Your task to perform on an android device: refresh tabs in the chrome app Image 0: 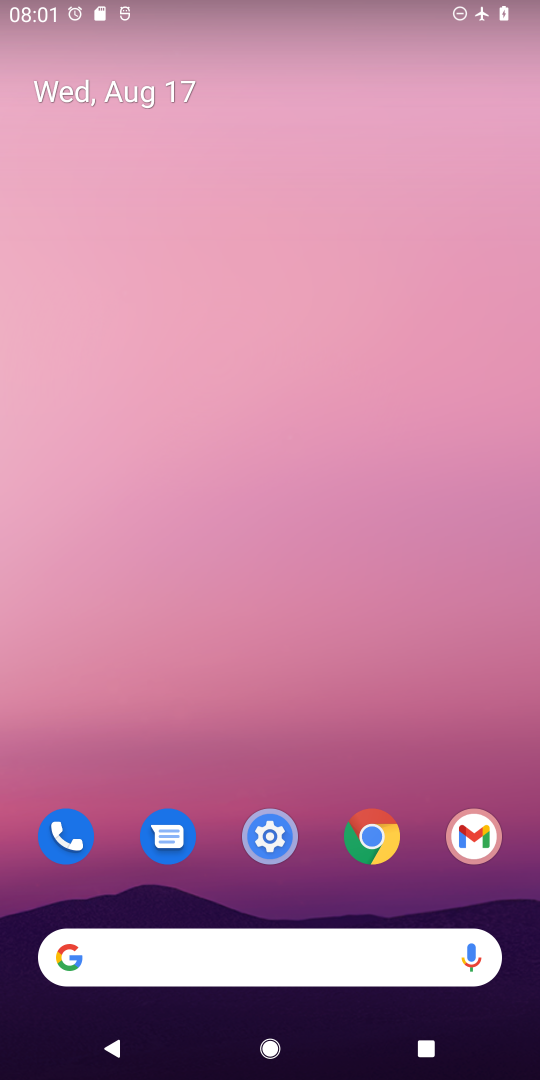
Step 0: click (336, 236)
Your task to perform on an android device: refresh tabs in the chrome app Image 1: 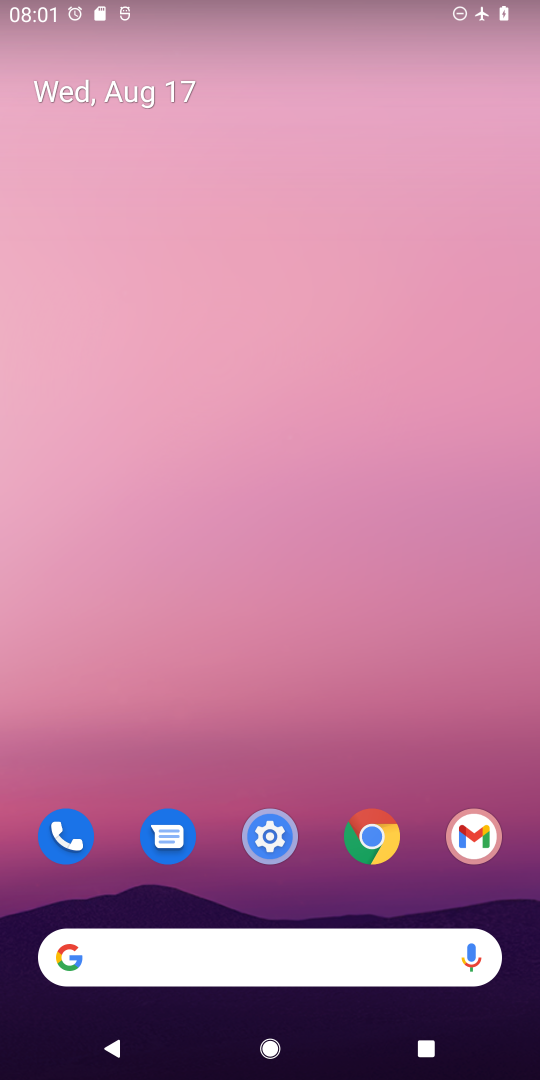
Step 1: drag from (273, 907) to (302, 196)
Your task to perform on an android device: refresh tabs in the chrome app Image 2: 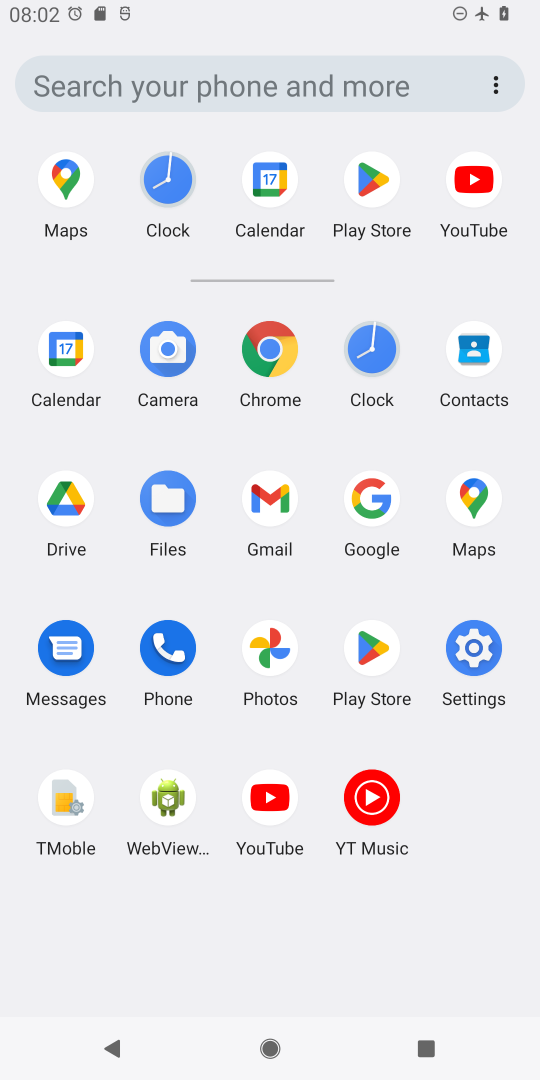
Step 2: click (288, 346)
Your task to perform on an android device: refresh tabs in the chrome app Image 3: 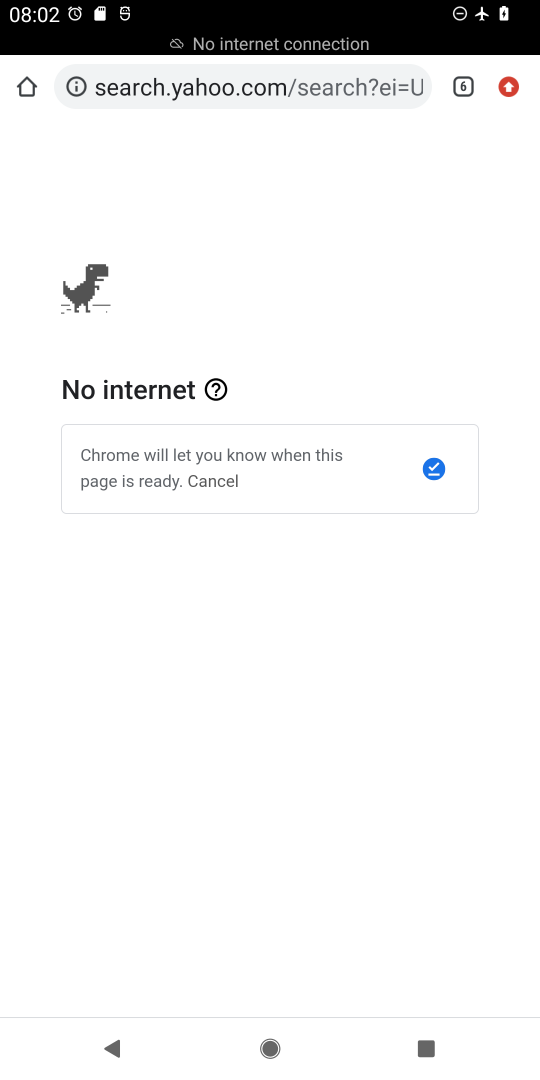
Step 3: click (523, 56)
Your task to perform on an android device: refresh tabs in the chrome app Image 4: 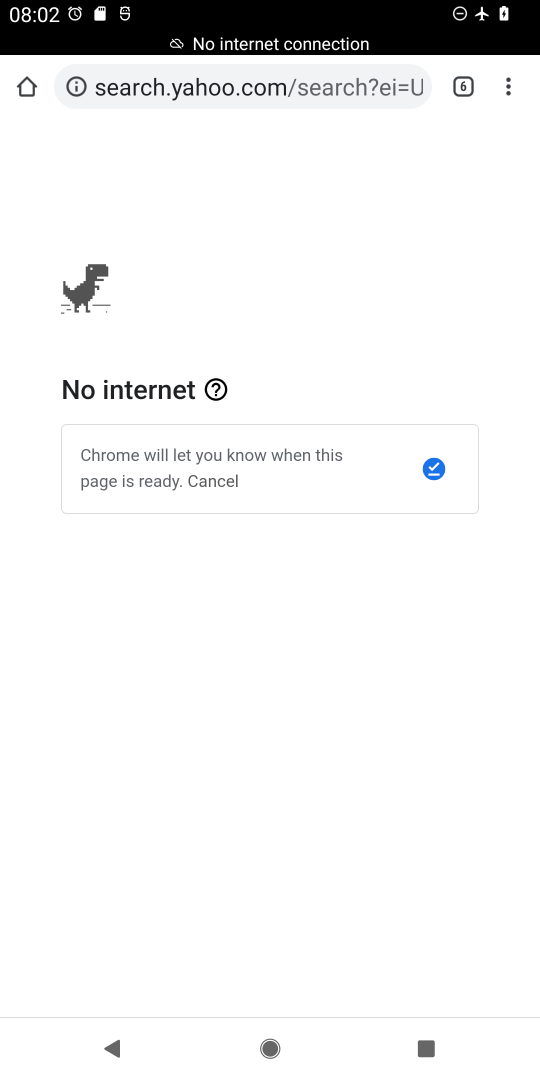
Step 4: click (521, 92)
Your task to perform on an android device: refresh tabs in the chrome app Image 5: 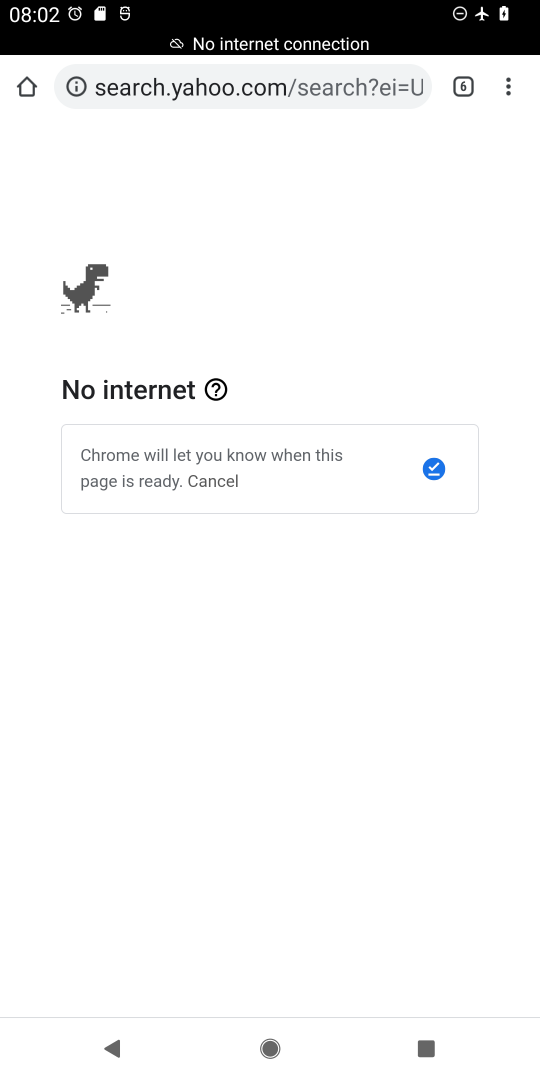
Step 5: click (521, 86)
Your task to perform on an android device: refresh tabs in the chrome app Image 6: 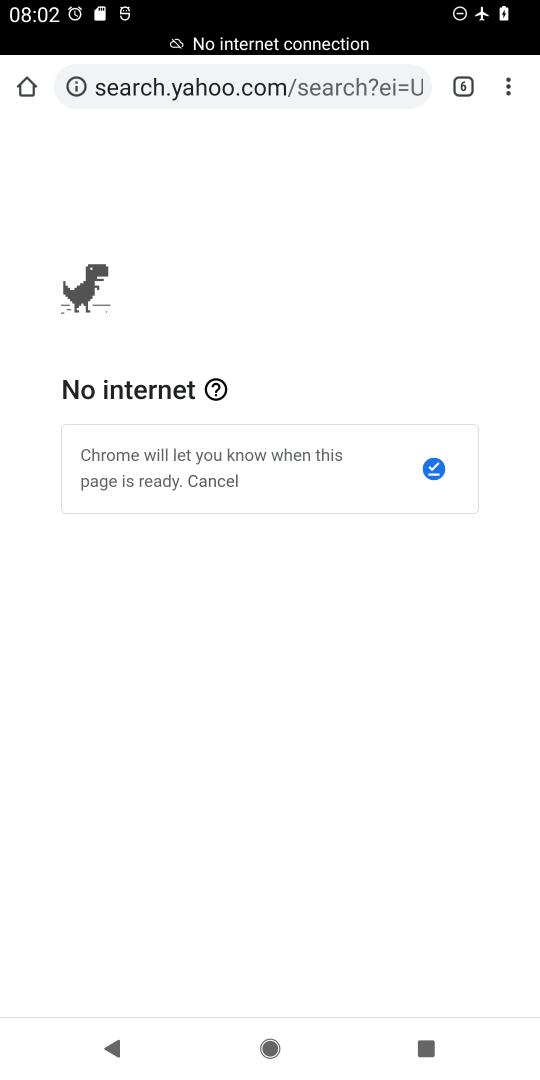
Step 6: click (501, 86)
Your task to perform on an android device: refresh tabs in the chrome app Image 7: 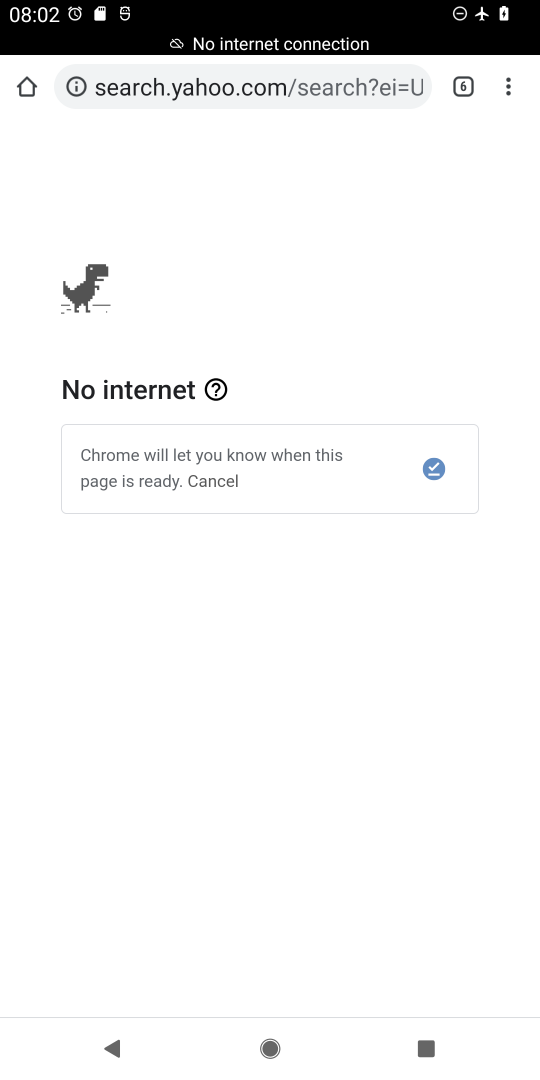
Step 7: click (498, 89)
Your task to perform on an android device: refresh tabs in the chrome app Image 8: 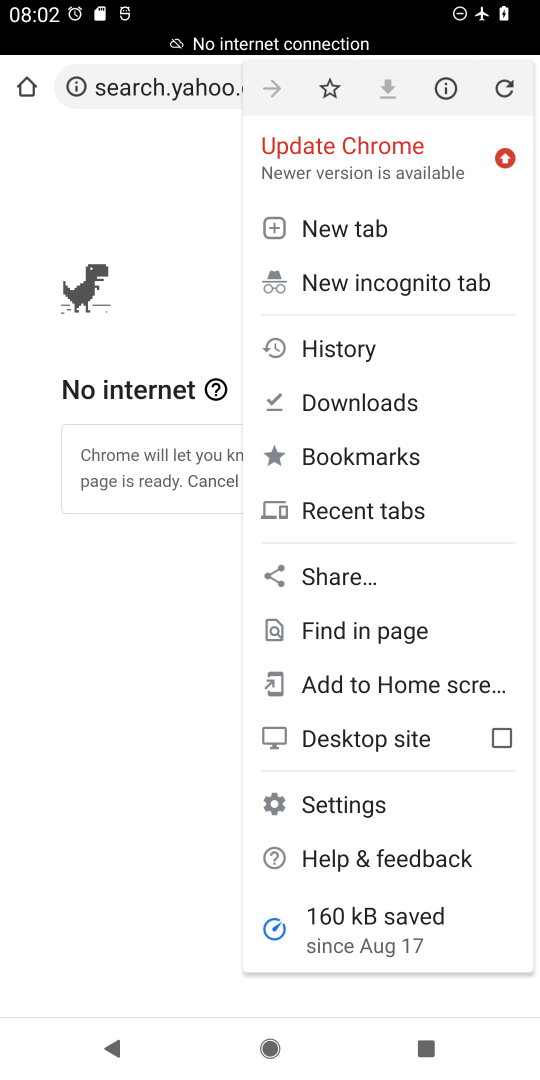
Step 8: click (508, 88)
Your task to perform on an android device: refresh tabs in the chrome app Image 9: 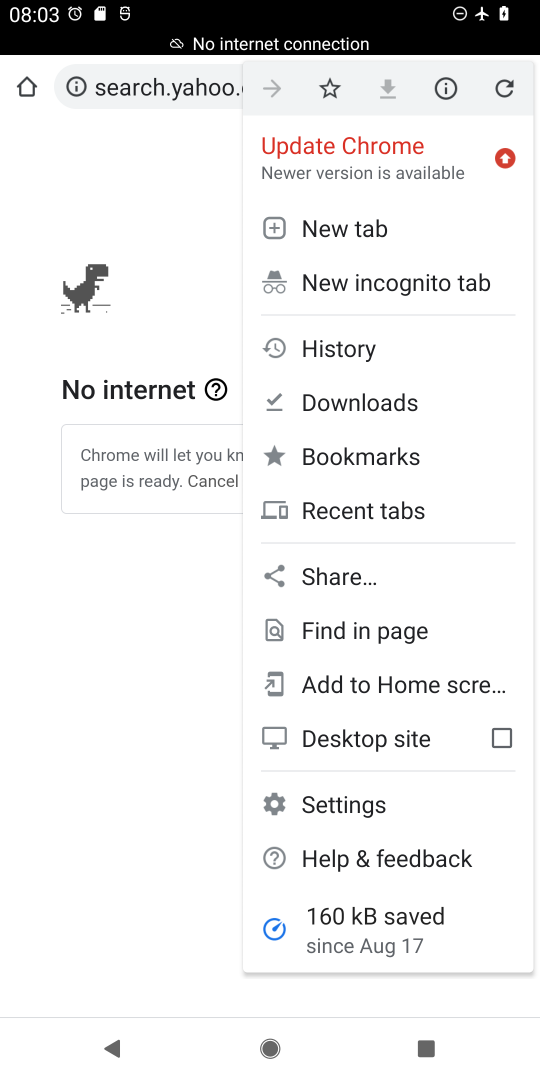
Step 9: task complete